Your task to perform on an android device: What's the weather going to be tomorrow? Image 0: 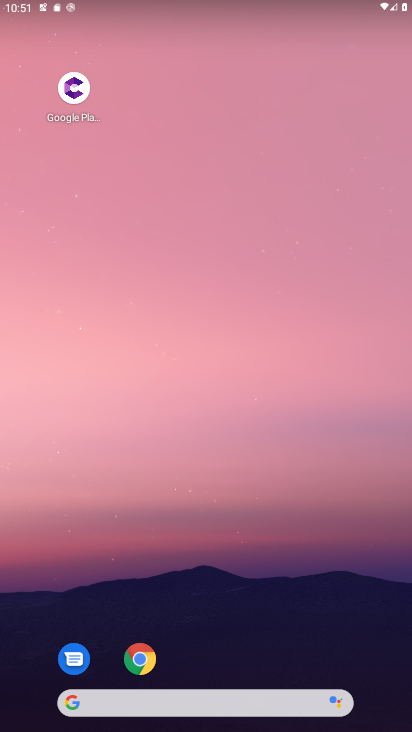
Step 0: click (186, 700)
Your task to perform on an android device: What's the weather going to be tomorrow? Image 1: 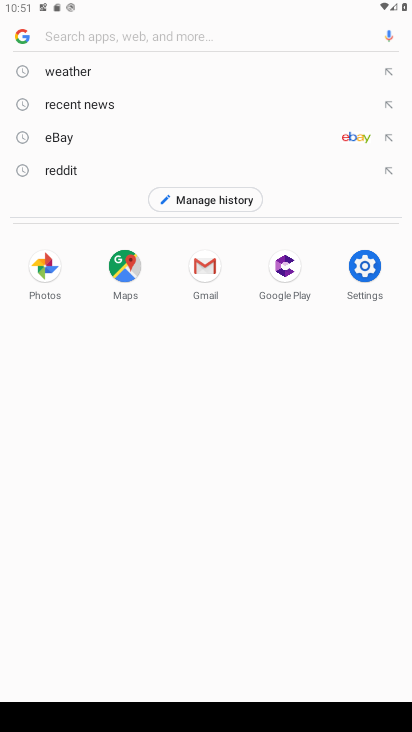
Step 1: type "weather for tomorrow"
Your task to perform on an android device: What's the weather going to be tomorrow? Image 2: 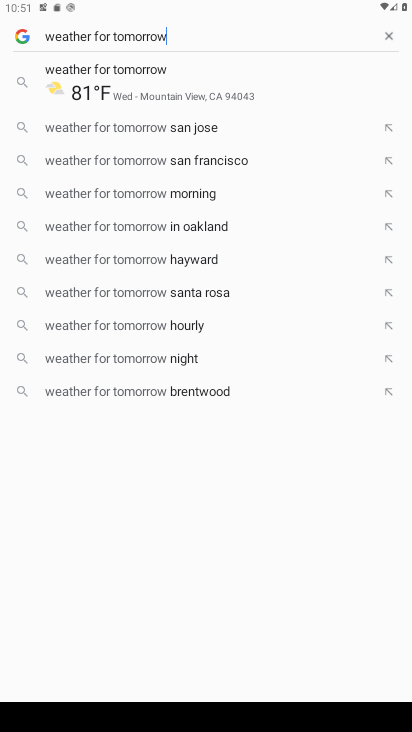
Step 2: click (194, 110)
Your task to perform on an android device: What's the weather going to be tomorrow? Image 3: 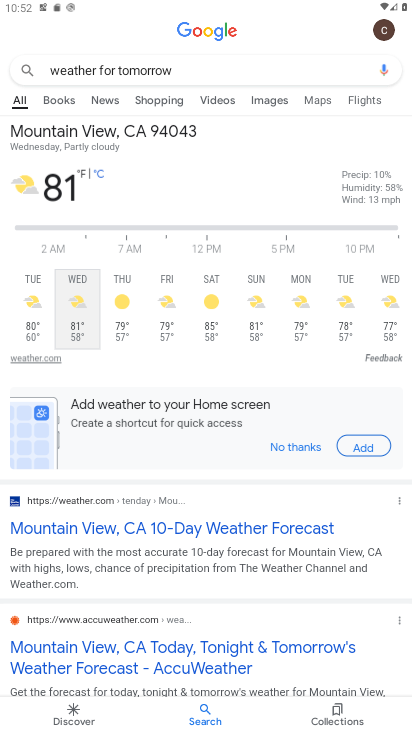
Step 3: task complete